Your task to perform on an android device: read, delete, or share a saved page in the chrome app Image 0: 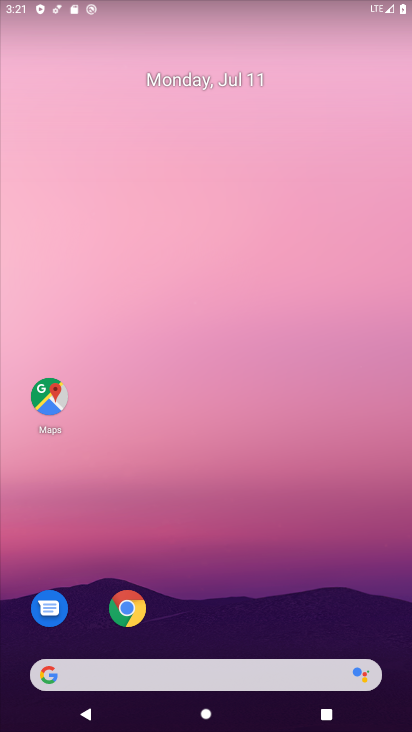
Step 0: click (127, 605)
Your task to perform on an android device: read, delete, or share a saved page in the chrome app Image 1: 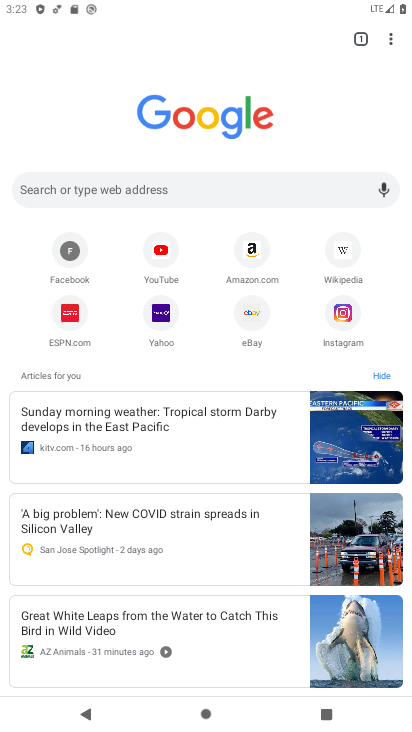
Step 1: click (393, 40)
Your task to perform on an android device: read, delete, or share a saved page in the chrome app Image 2: 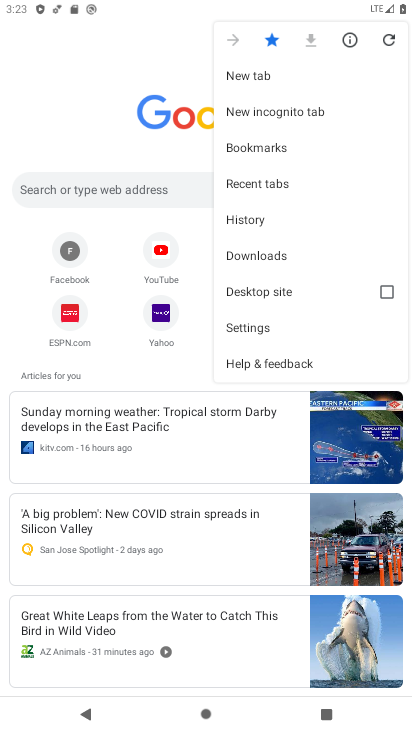
Step 2: click (278, 257)
Your task to perform on an android device: read, delete, or share a saved page in the chrome app Image 3: 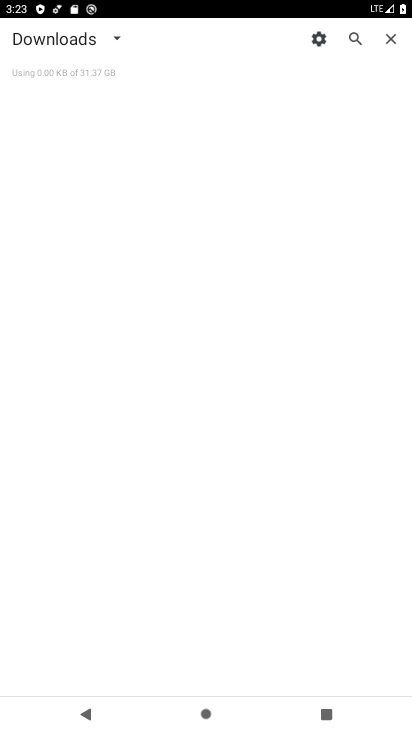
Step 3: click (109, 35)
Your task to perform on an android device: read, delete, or share a saved page in the chrome app Image 4: 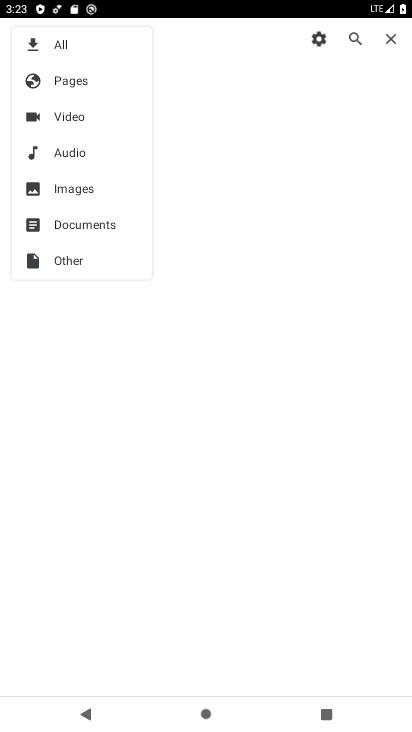
Step 4: click (74, 49)
Your task to perform on an android device: read, delete, or share a saved page in the chrome app Image 5: 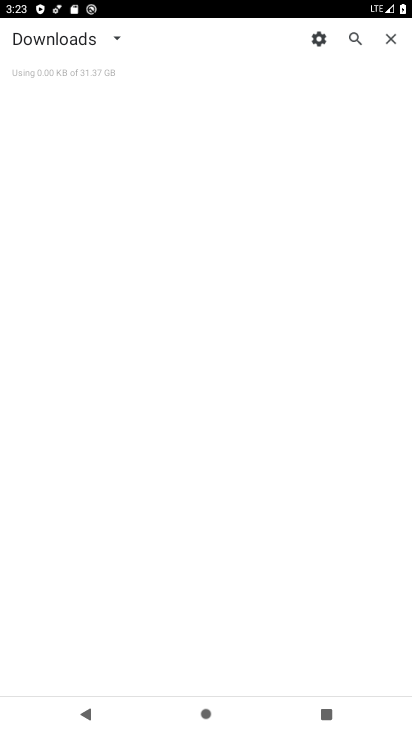
Step 5: click (115, 38)
Your task to perform on an android device: read, delete, or share a saved page in the chrome app Image 6: 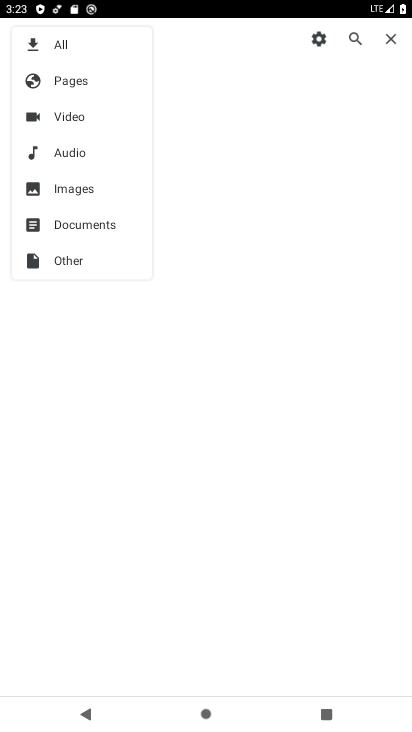
Step 6: click (63, 253)
Your task to perform on an android device: read, delete, or share a saved page in the chrome app Image 7: 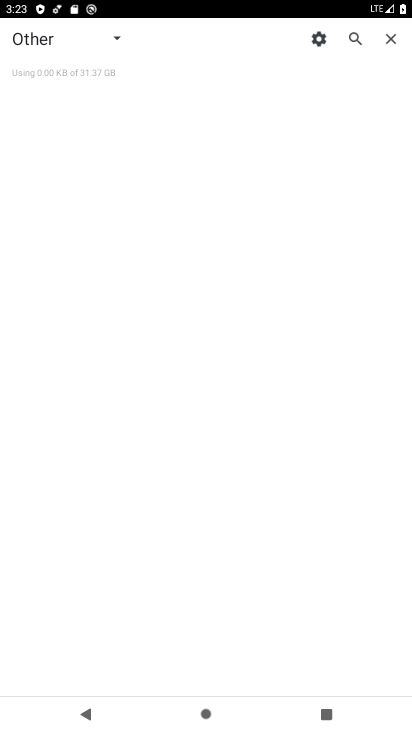
Step 7: click (117, 38)
Your task to perform on an android device: read, delete, or share a saved page in the chrome app Image 8: 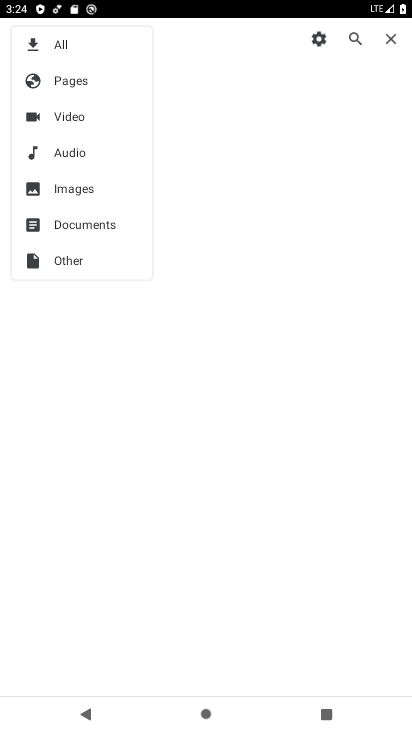
Step 8: click (85, 270)
Your task to perform on an android device: read, delete, or share a saved page in the chrome app Image 9: 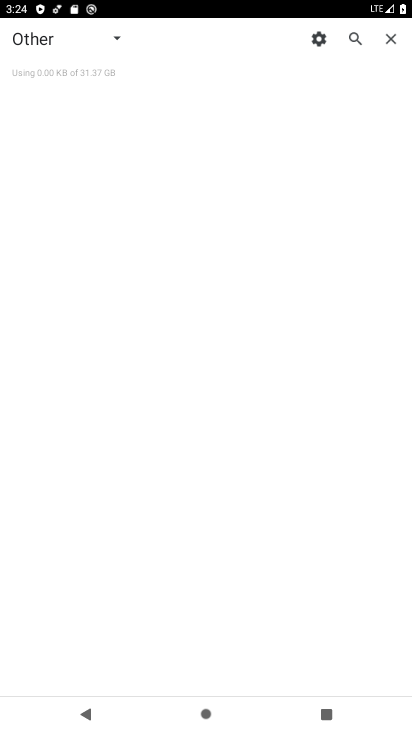
Step 9: task complete